Your task to perform on an android device: Open calendar and show me the first week of next month Image 0: 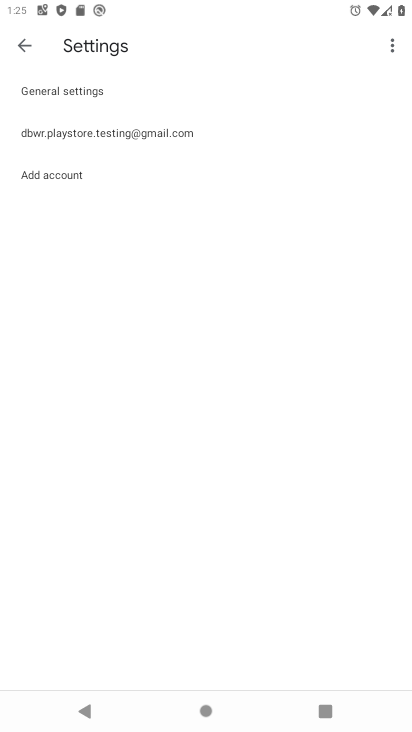
Step 0: press home button
Your task to perform on an android device: Open calendar and show me the first week of next month Image 1: 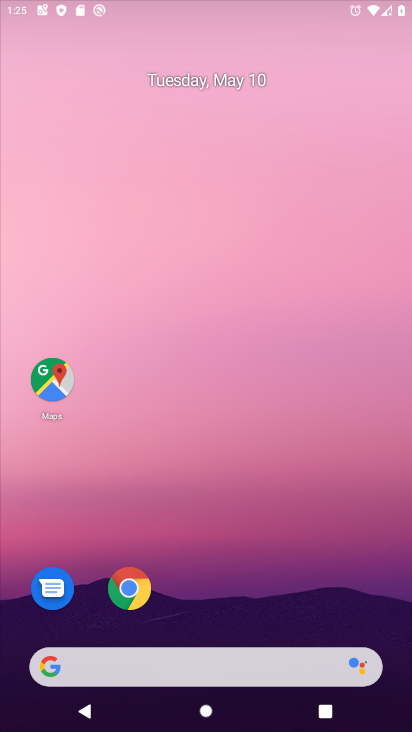
Step 1: drag from (247, 576) to (294, 162)
Your task to perform on an android device: Open calendar and show me the first week of next month Image 2: 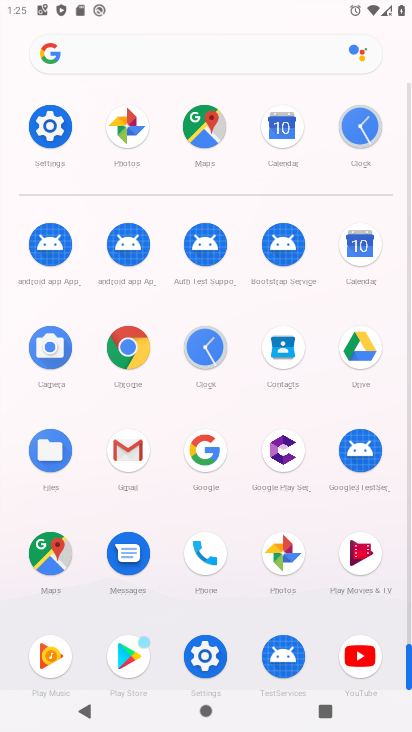
Step 2: click (281, 127)
Your task to perform on an android device: Open calendar and show me the first week of next month Image 3: 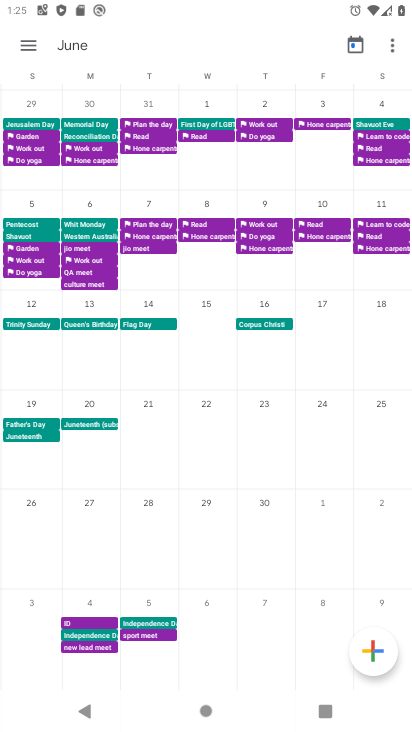
Step 3: click (26, 45)
Your task to perform on an android device: Open calendar and show me the first week of next month Image 4: 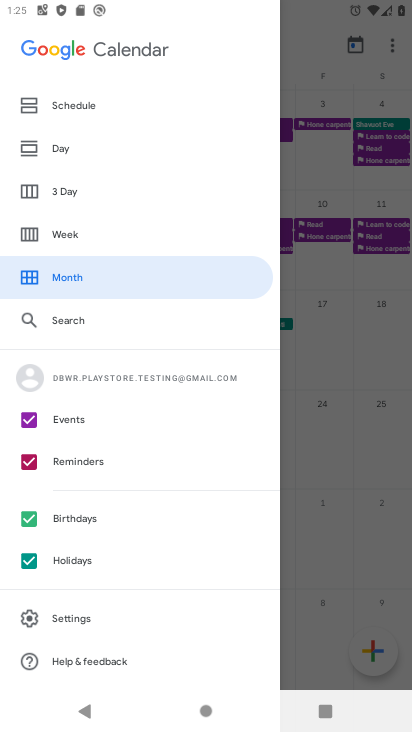
Step 4: click (68, 225)
Your task to perform on an android device: Open calendar and show me the first week of next month Image 5: 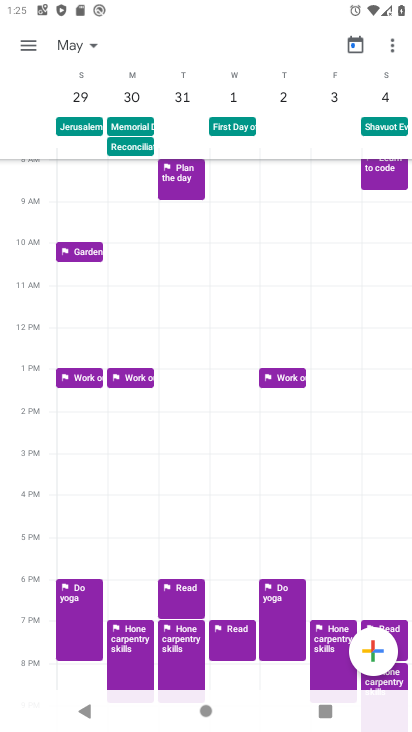
Step 5: task complete